Your task to perform on an android device: search for starred emails in the gmail app Image 0: 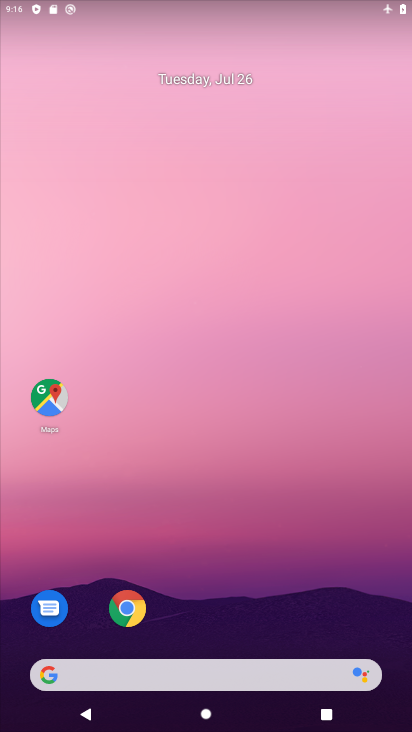
Step 0: drag from (200, 599) to (238, 97)
Your task to perform on an android device: search for starred emails in the gmail app Image 1: 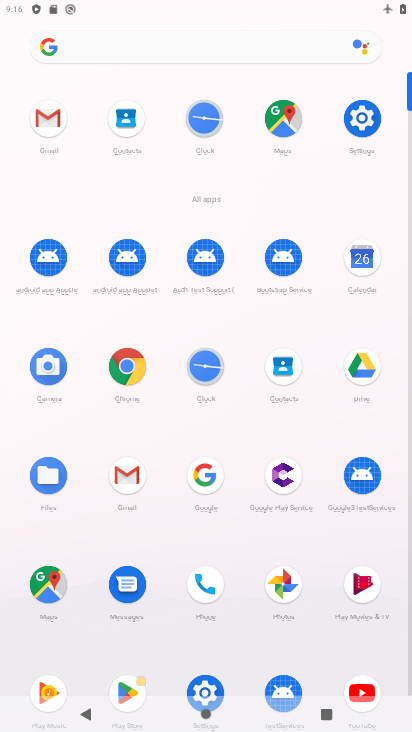
Step 1: click (59, 120)
Your task to perform on an android device: search for starred emails in the gmail app Image 2: 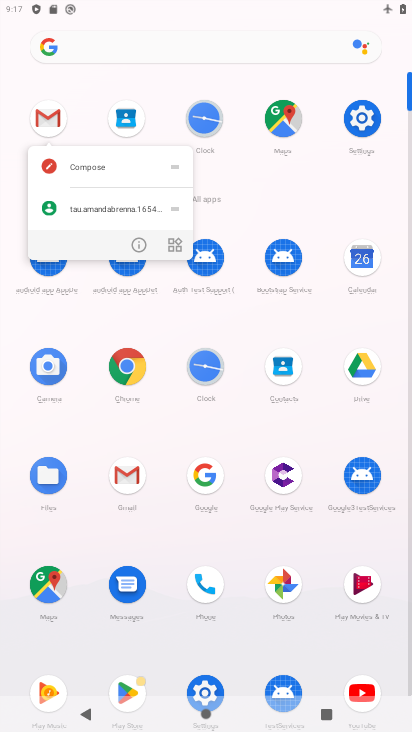
Step 2: click (64, 114)
Your task to perform on an android device: search for starred emails in the gmail app Image 3: 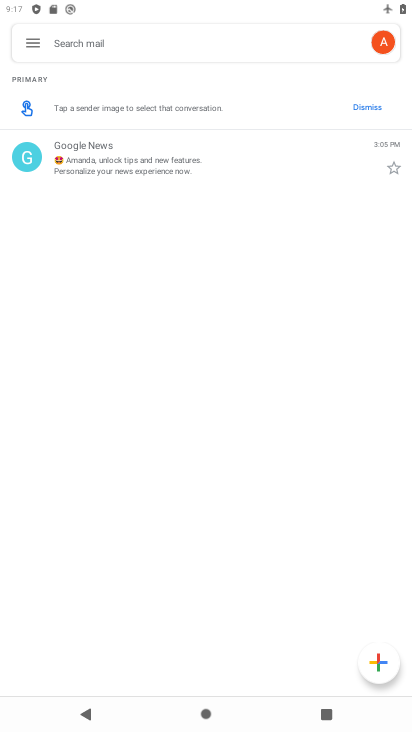
Step 3: click (38, 45)
Your task to perform on an android device: search for starred emails in the gmail app Image 4: 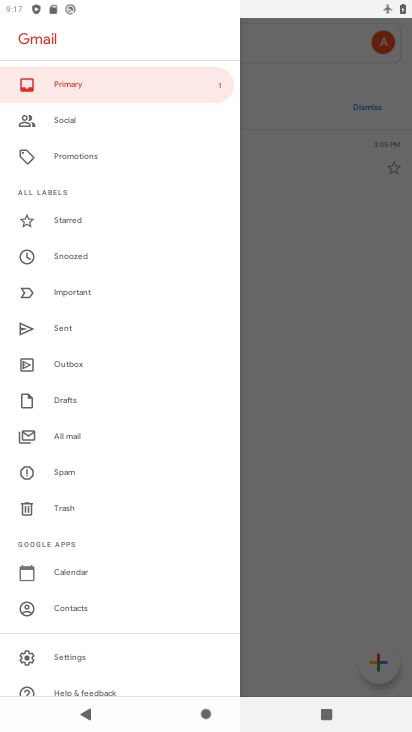
Step 4: click (105, 216)
Your task to perform on an android device: search for starred emails in the gmail app Image 5: 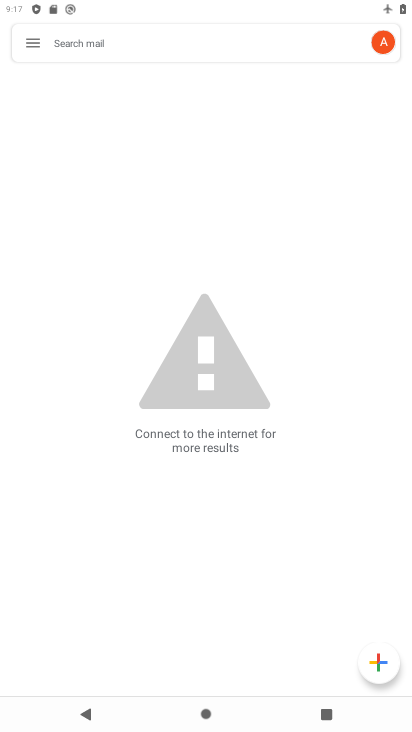
Step 5: task complete